Your task to perform on an android device: check storage Image 0: 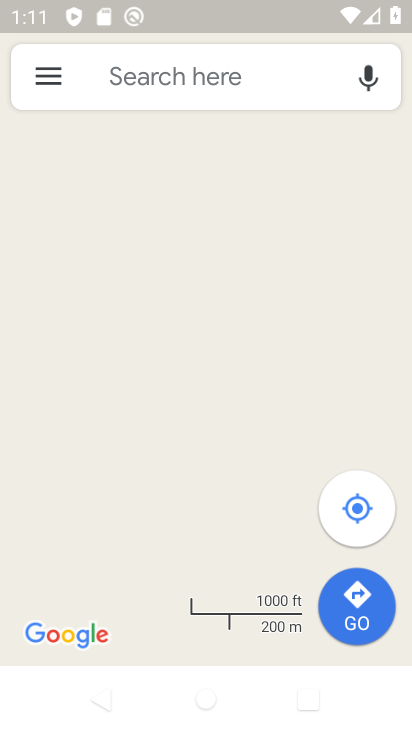
Step 0: press home button
Your task to perform on an android device: check storage Image 1: 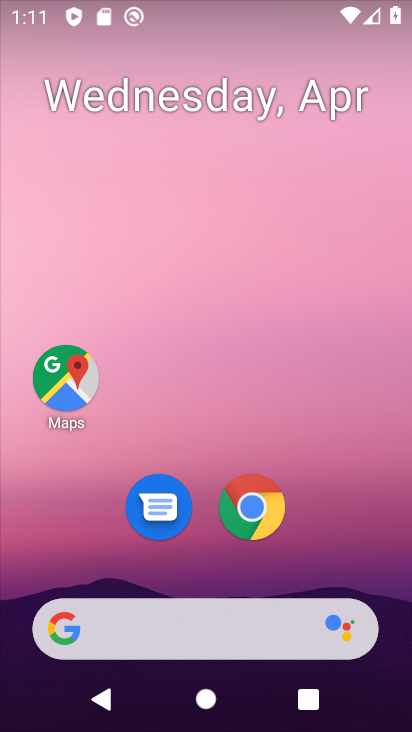
Step 1: drag from (256, 662) to (258, 32)
Your task to perform on an android device: check storage Image 2: 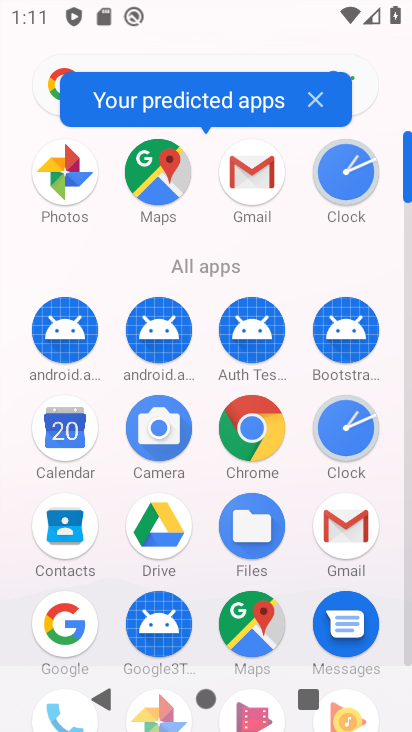
Step 2: drag from (266, 653) to (183, 126)
Your task to perform on an android device: check storage Image 3: 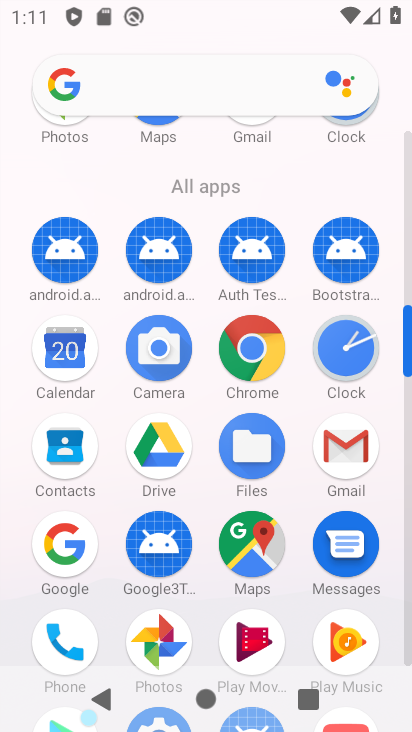
Step 3: drag from (271, 587) to (241, 58)
Your task to perform on an android device: check storage Image 4: 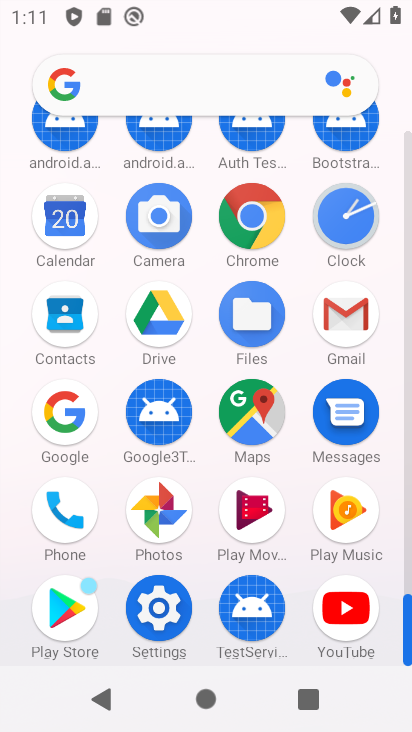
Step 4: click (162, 596)
Your task to perform on an android device: check storage Image 5: 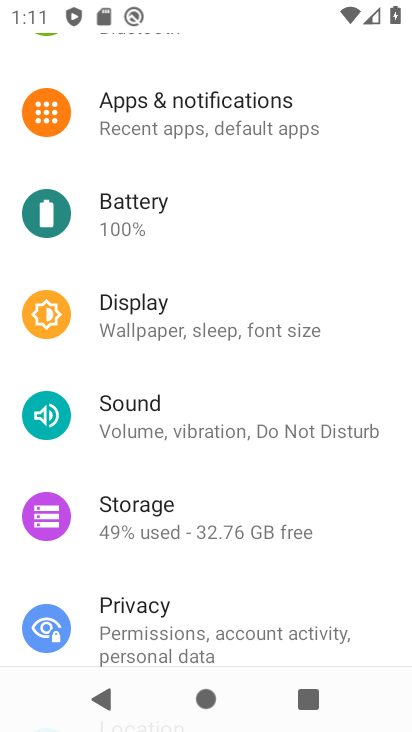
Step 5: click (132, 526)
Your task to perform on an android device: check storage Image 6: 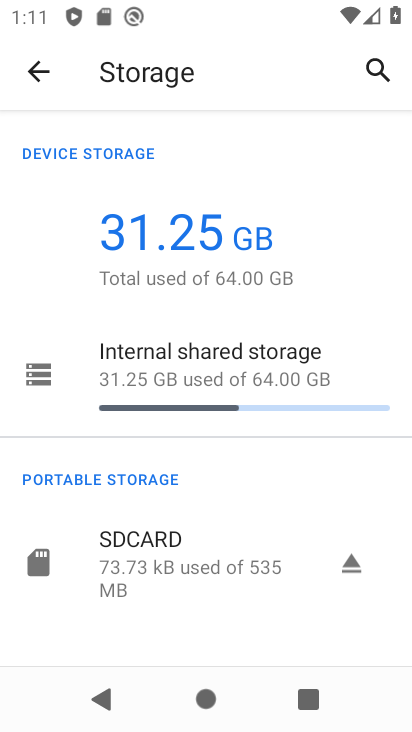
Step 6: task complete